Your task to perform on an android device: check data usage Image 0: 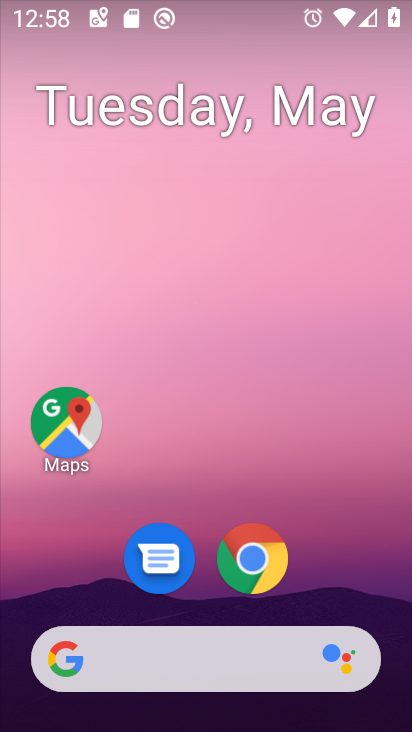
Step 0: drag from (370, 599) to (244, 70)
Your task to perform on an android device: check data usage Image 1: 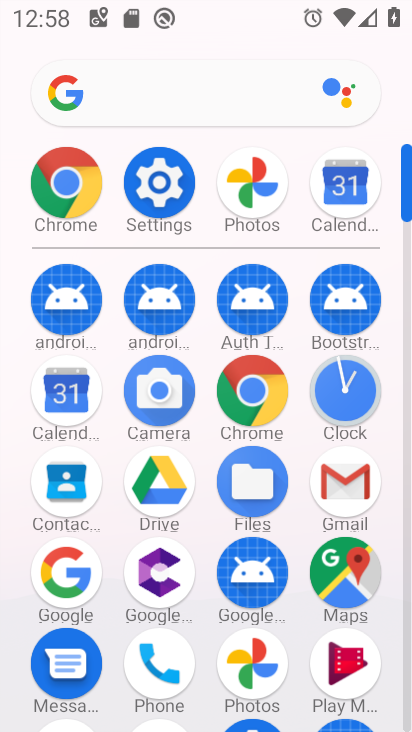
Step 1: click (172, 175)
Your task to perform on an android device: check data usage Image 2: 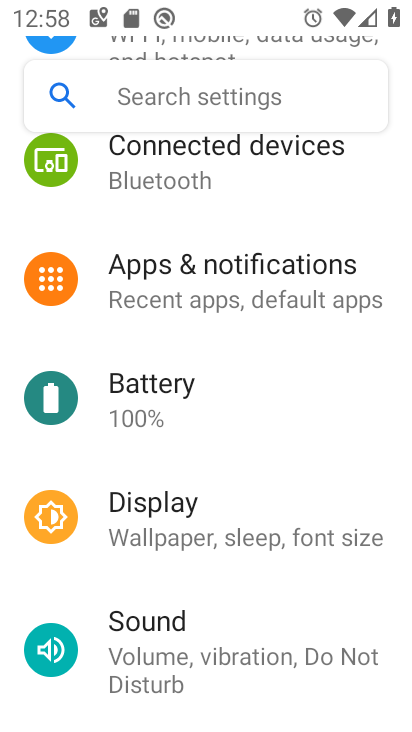
Step 2: drag from (198, 201) to (218, 627)
Your task to perform on an android device: check data usage Image 3: 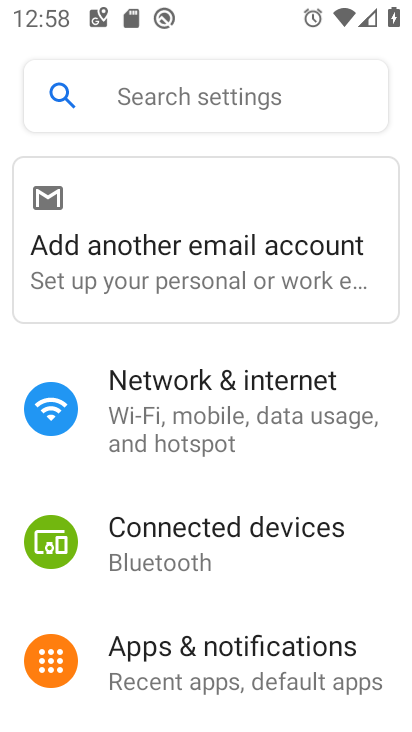
Step 3: click (175, 400)
Your task to perform on an android device: check data usage Image 4: 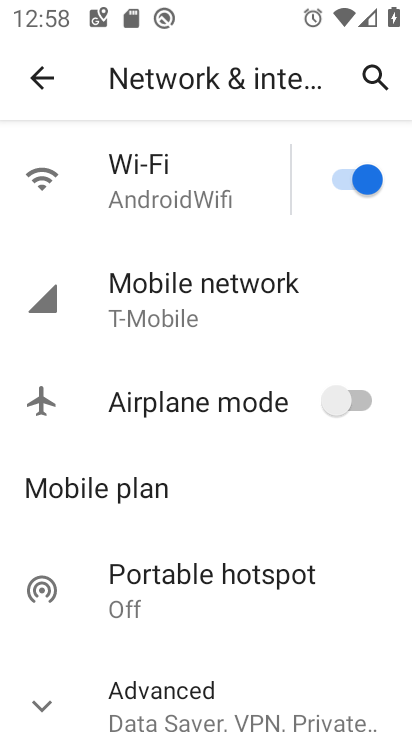
Step 4: click (169, 169)
Your task to perform on an android device: check data usage Image 5: 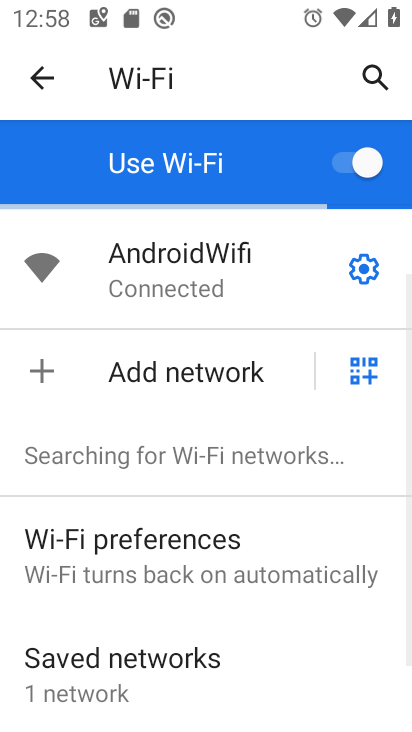
Step 5: drag from (204, 683) to (198, 244)
Your task to perform on an android device: check data usage Image 6: 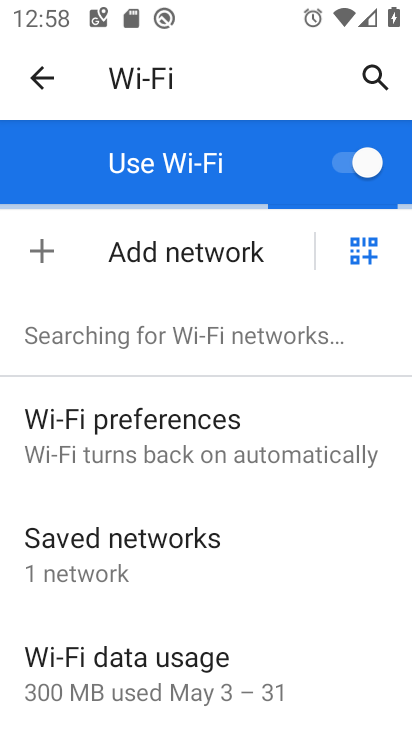
Step 6: click (174, 691)
Your task to perform on an android device: check data usage Image 7: 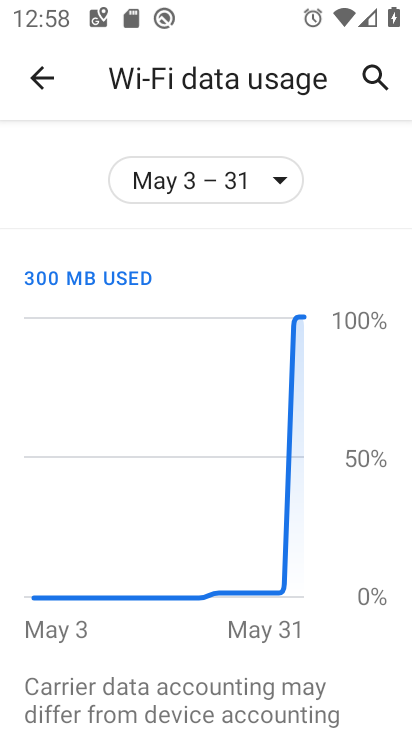
Step 7: task complete